Your task to perform on an android device: Open Yahoo.com Image 0: 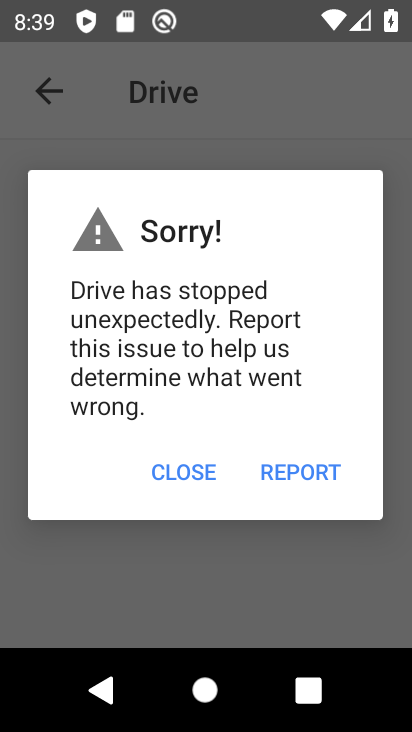
Step 0: press home button
Your task to perform on an android device: Open Yahoo.com Image 1: 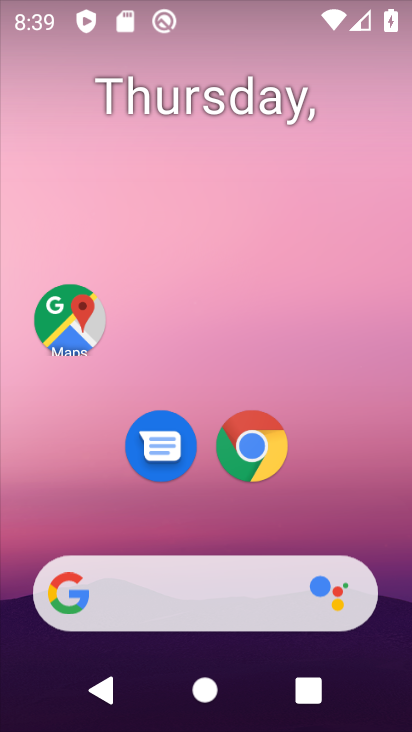
Step 1: drag from (142, 517) to (148, 106)
Your task to perform on an android device: Open Yahoo.com Image 2: 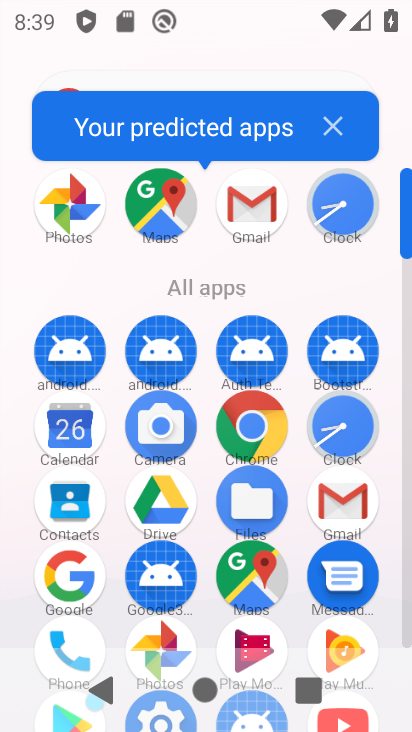
Step 2: drag from (276, 317) to (296, 143)
Your task to perform on an android device: Open Yahoo.com Image 3: 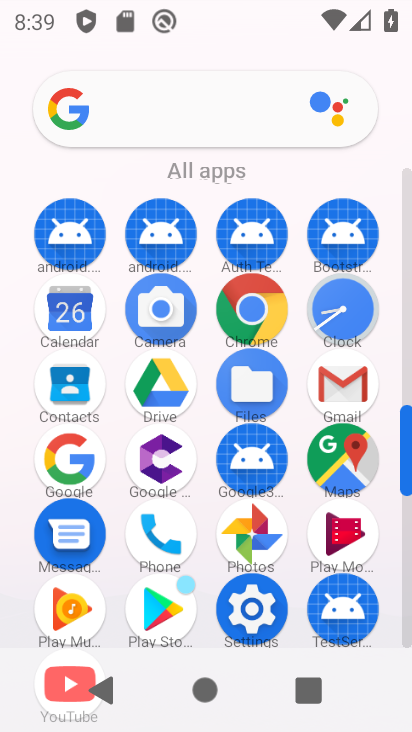
Step 3: click (255, 320)
Your task to perform on an android device: Open Yahoo.com Image 4: 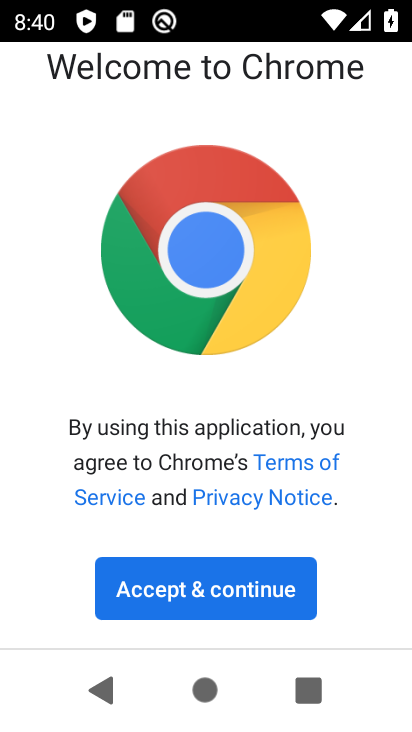
Step 4: click (199, 594)
Your task to perform on an android device: Open Yahoo.com Image 5: 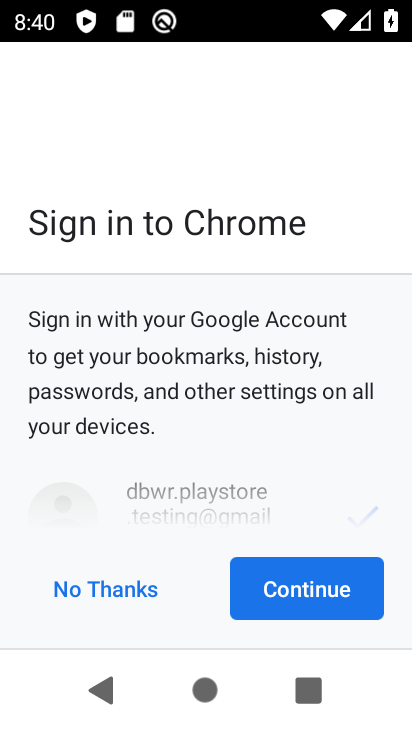
Step 5: click (278, 598)
Your task to perform on an android device: Open Yahoo.com Image 6: 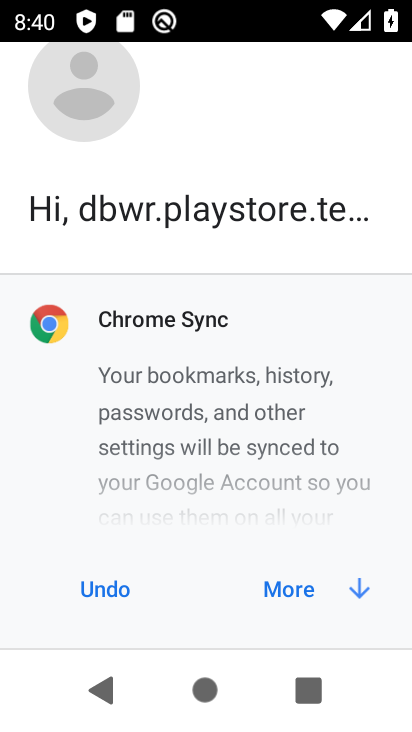
Step 6: click (278, 593)
Your task to perform on an android device: Open Yahoo.com Image 7: 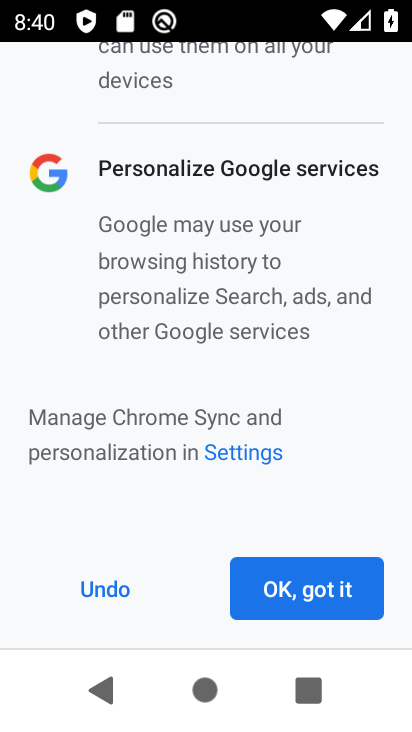
Step 7: click (278, 593)
Your task to perform on an android device: Open Yahoo.com Image 8: 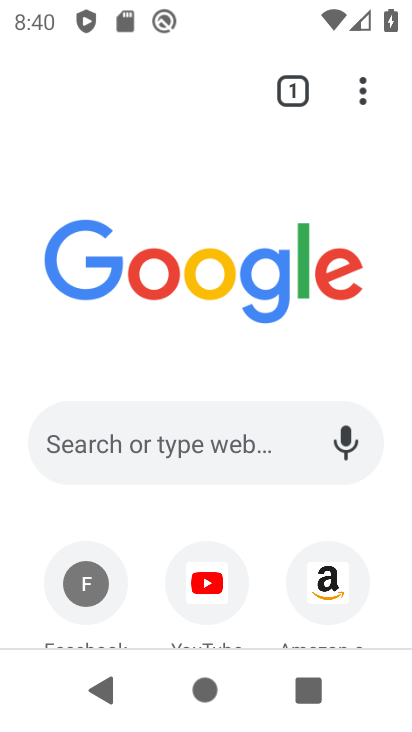
Step 8: click (198, 440)
Your task to perform on an android device: Open Yahoo.com Image 9: 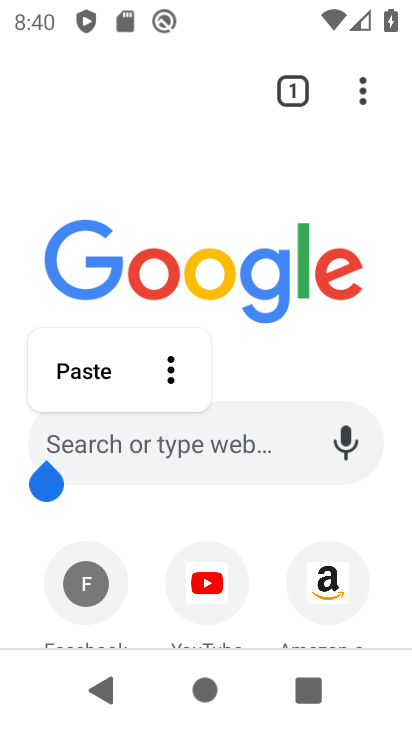
Step 9: click (163, 438)
Your task to perform on an android device: Open Yahoo.com Image 10: 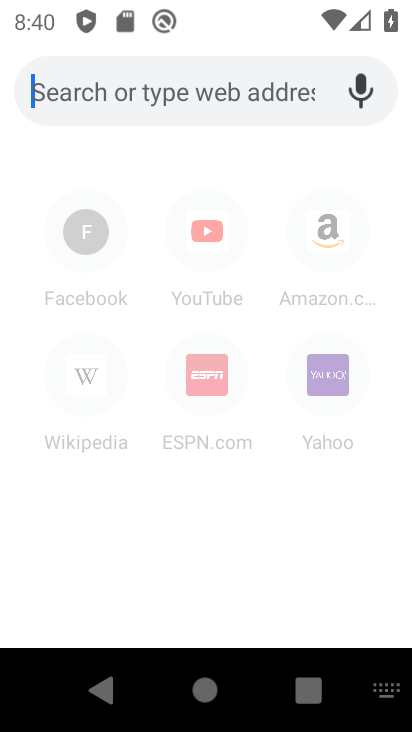
Step 10: type "Yahoo.com"
Your task to perform on an android device: Open Yahoo.com Image 11: 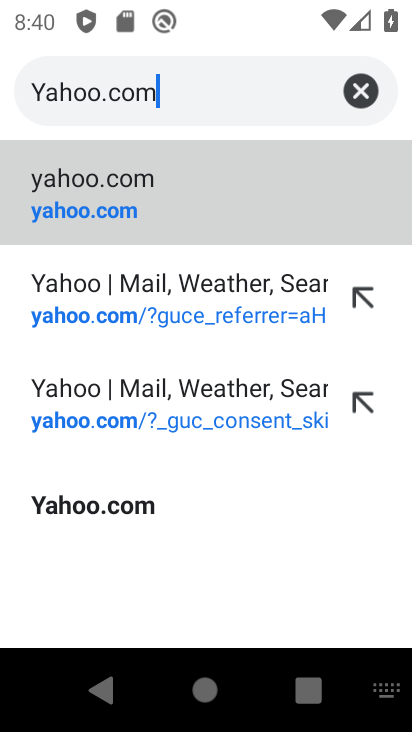
Step 11: click (117, 212)
Your task to perform on an android device: Open Yahoo.com Image 12: 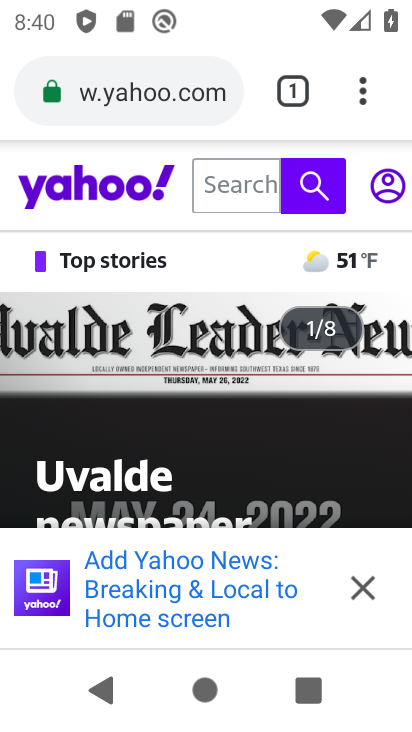
Step 12: task complete